Your task to perform on an android device: check google app version Image 0: 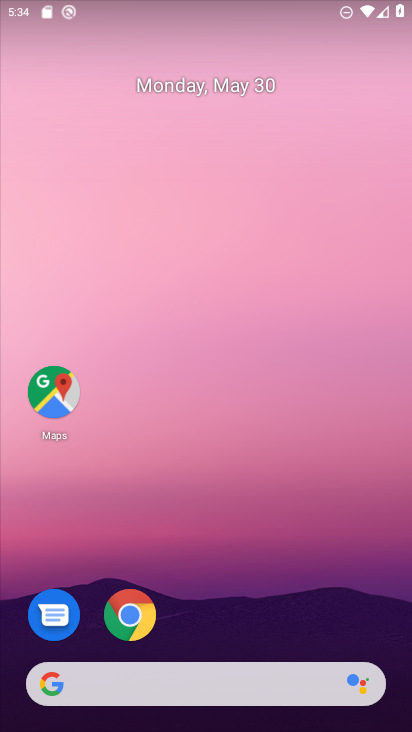
Step 0: click (194, 678)
Your task to perform on an android device: check google app version Image 1: 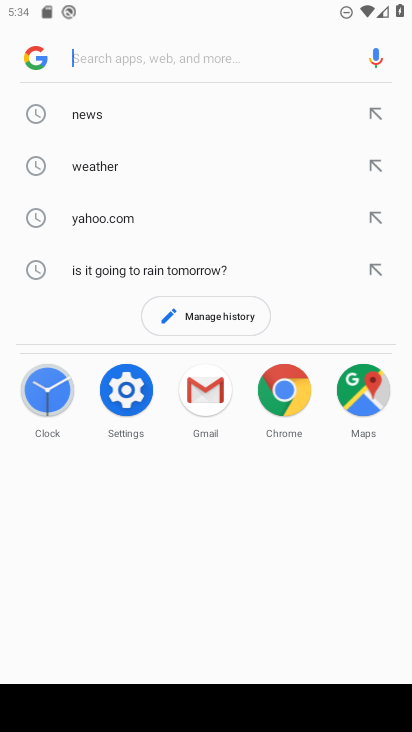
Step 1: click (35, 69)
Your task to perform on an android device: check google app version Image 2: 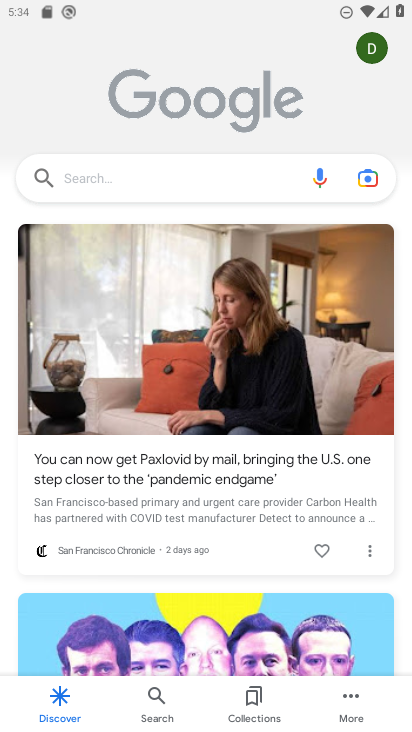
Step 2: click (351, 701)
Your task to perform on an android device: check google app version Image 3: 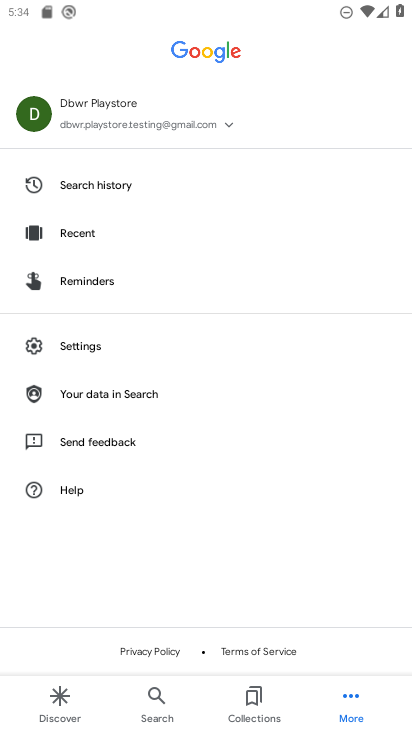
Step 3: click (125, 355)
Your task to perform on an android device: check google app version Image 4: 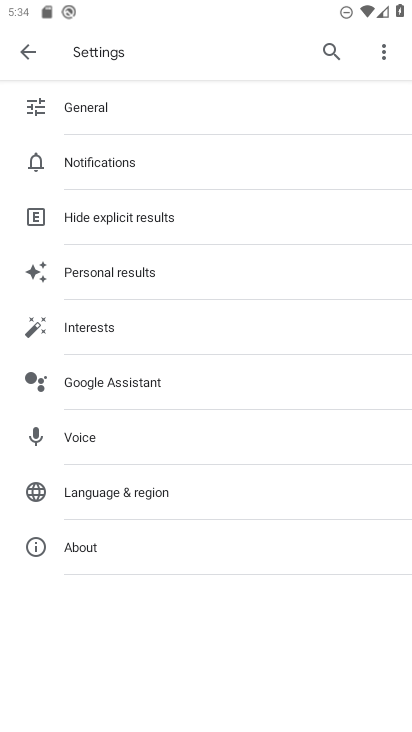
Step 4: click (90, 556)
Your task to perform on an android device: check google app version Image 5: 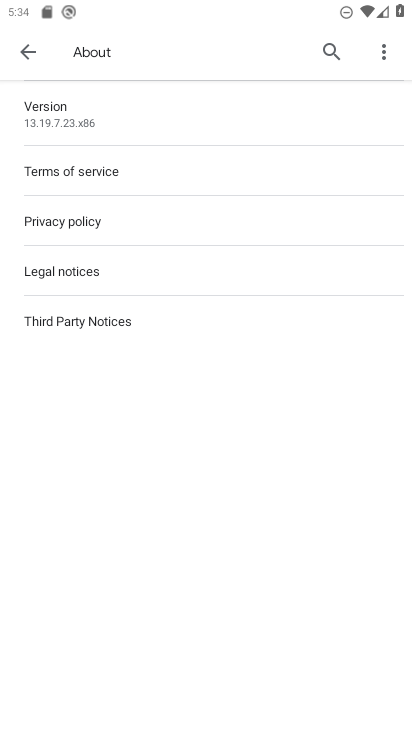
Step 5: task complete